Your task to perform on an android device: Search for a new bronzer Image 0: 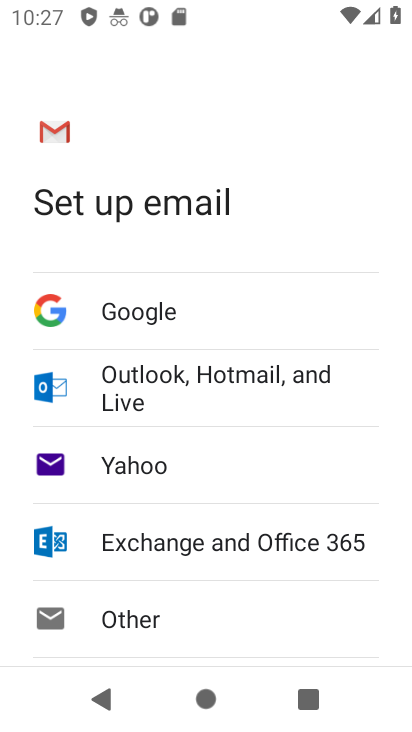
Step 0: press home button
Your task to perform on an android device: Search for a new bronzer Image 1: 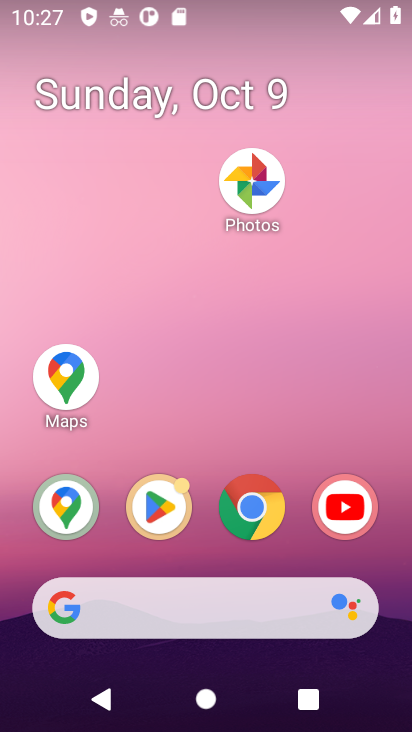
Step 1: drag from (195, 559) to (153, 46)
Your task to perform on an android device: Search for a new bronzer Image 2: 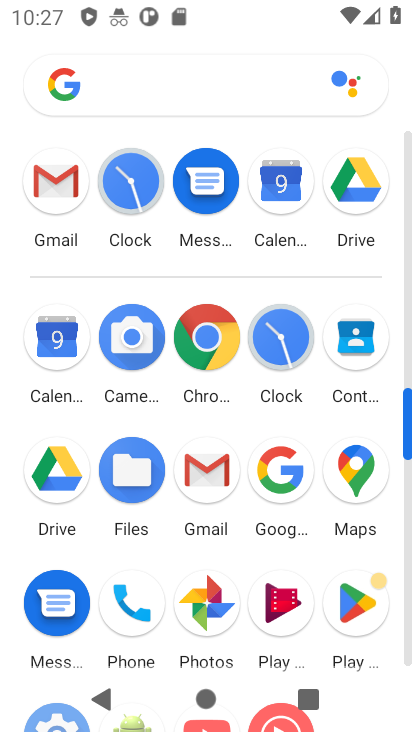
Step 2: click (200, 335)
Your task to perform on an android device: Search for a new bronzer Image 3: 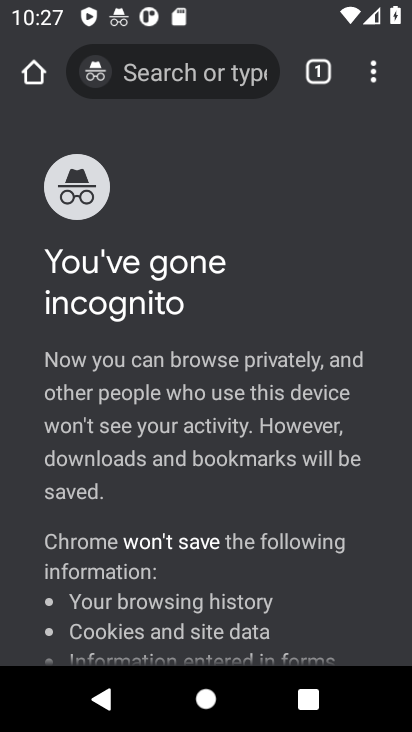
Step 3: click (179, 77)
Your task to perform on an android device: Search for a new bronzer Image 4: 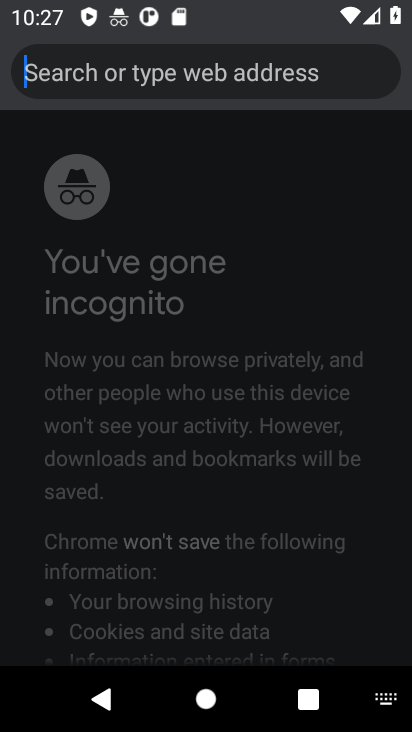
Step 4: type "new bronzer"
Your task to perform on an android device: Search for a new bronzer Image 5: 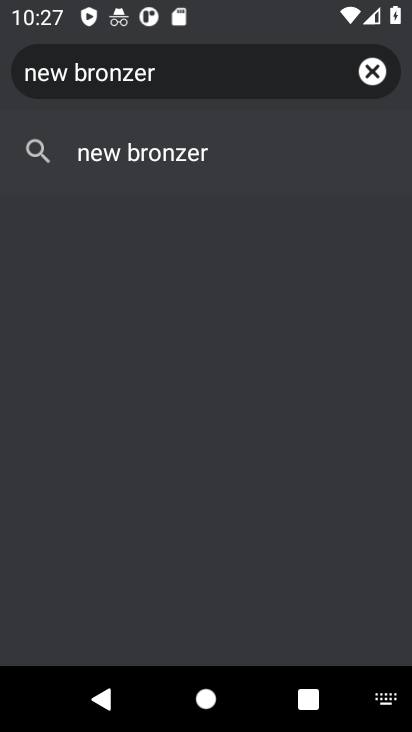
Step 5: press enter
Your task to perform on an android device: Search for a new bronzer Image 6: 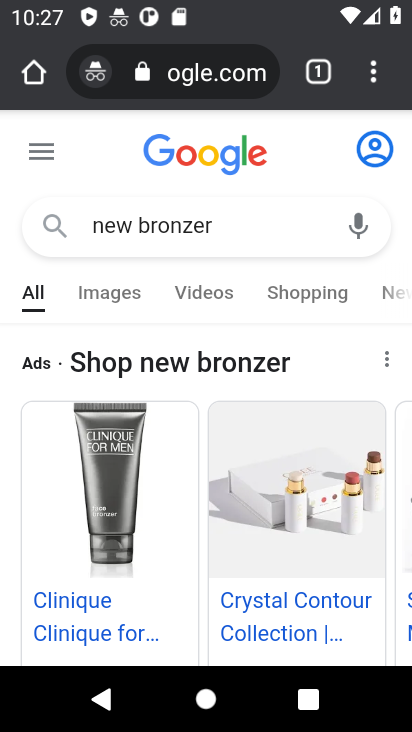
Step 6: drag from (316, 535) to (367, 131)
Your task to perform on an android device: Search for a new bronzer Image 7: 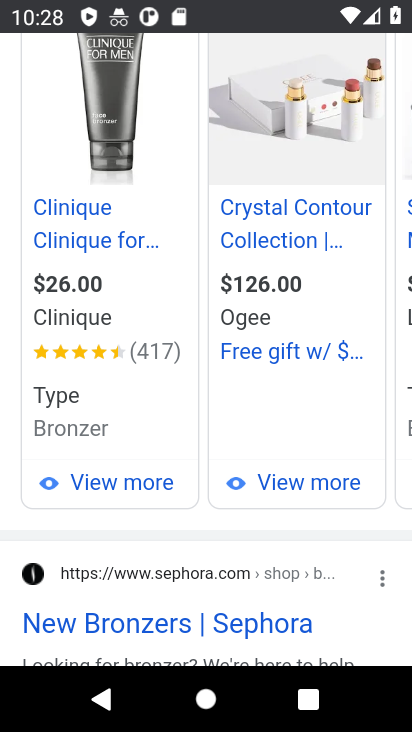
Step 7: drag from (231, 502) to (269, 146)
Your task to perform on an android device: Search for a new bronzer Image 8: 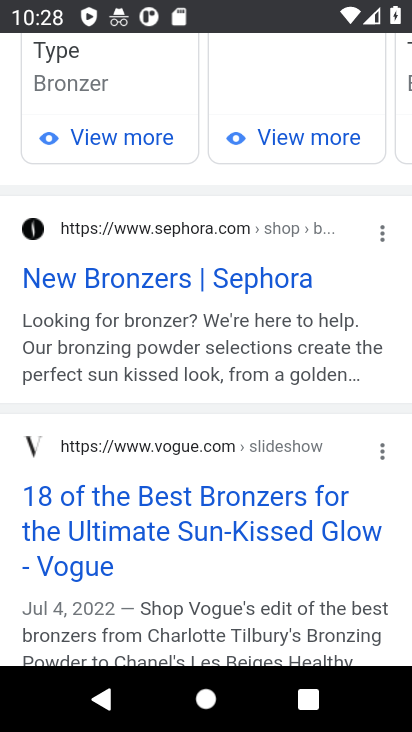
Step 8: click (265, 284)
Your task to perform on an android device: Search for a new bronzer Image 9: 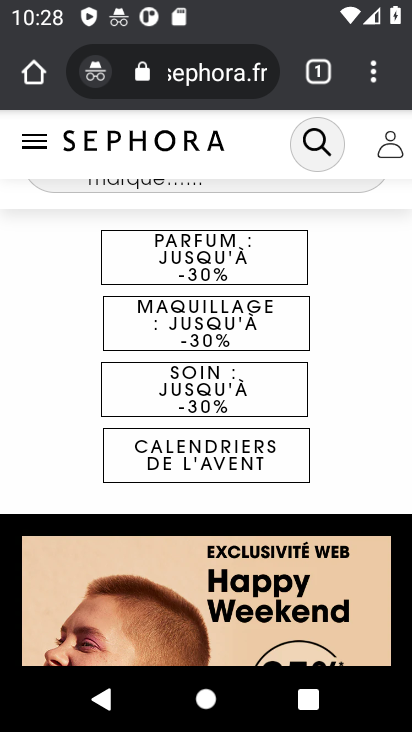
Step 9: task complete